Your task to perform on an android device: Go to Google Image 0: 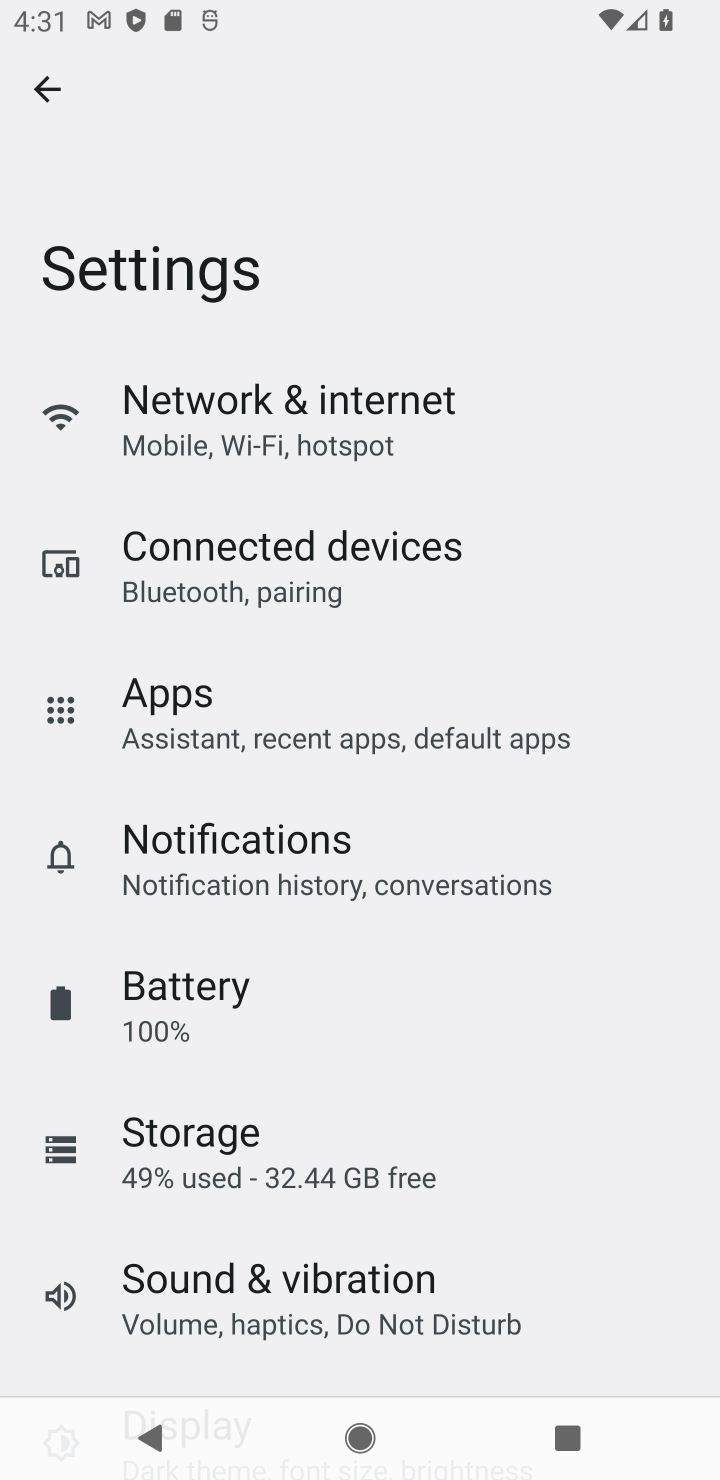
Step 0: task complete